Your task to perform on an android device: Do I have any events this weekend? Image 0: 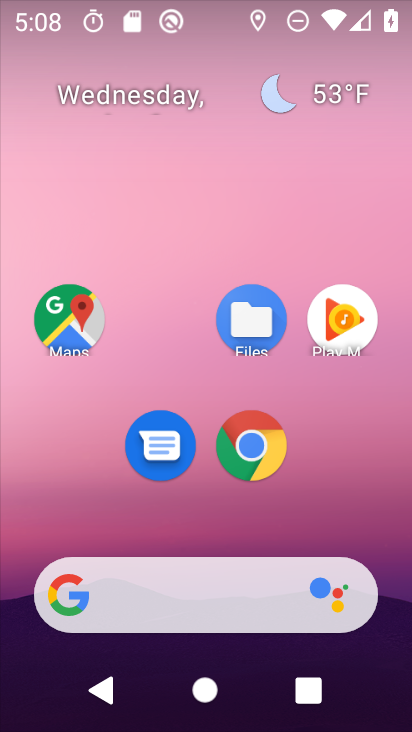
Step 0: drag from (327, 503) to (255, 109)
Your task to perform on an android device: Do I have any events this weekend? Image 1: 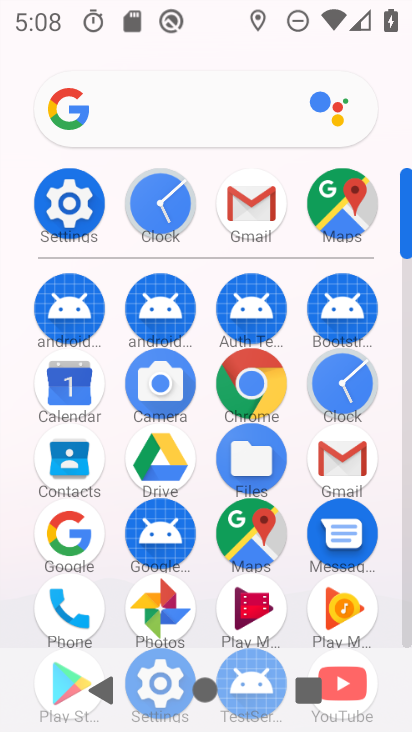
Step 1: click (83, 403)
Your task to perform on an android device: Do I have any events this weekend? Image 2: 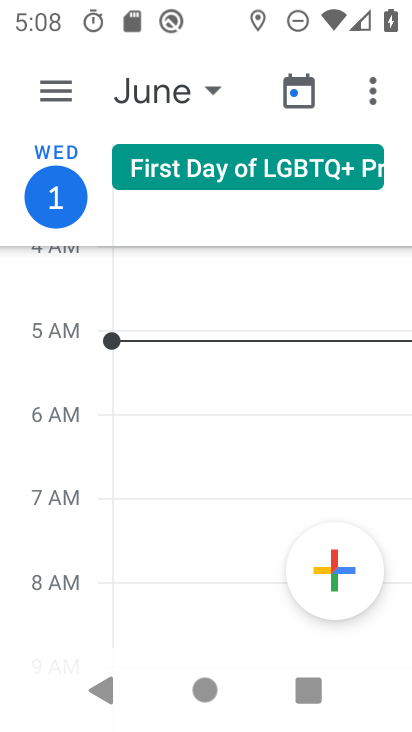
Step 2: click (53, 93)
Your task to perform on an android device: Do I have any events this weekend? Image 3: 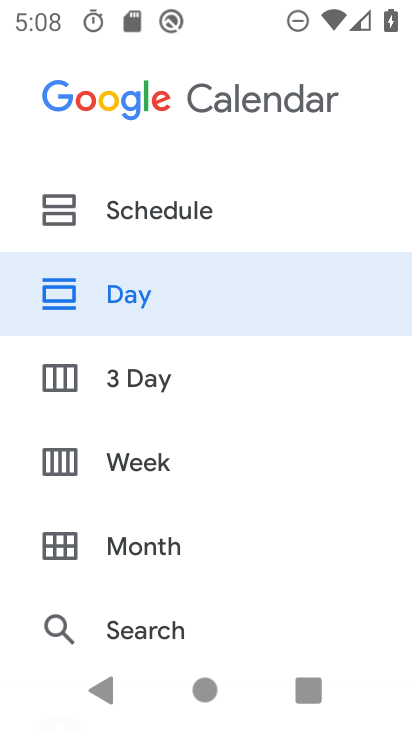
Step 3: click (108, 457)
Your task to perform on an android device: Do I have any events this weekend? Image 4: 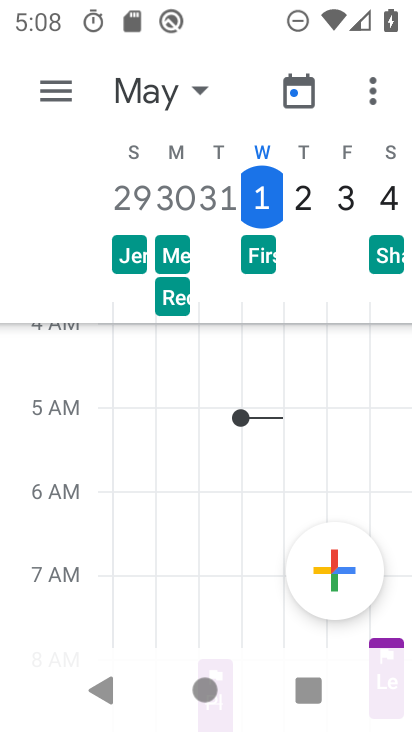
Step 4: click (47, 96)
Your task to perform on an android device: Do I have any events this weekend? Image 5: 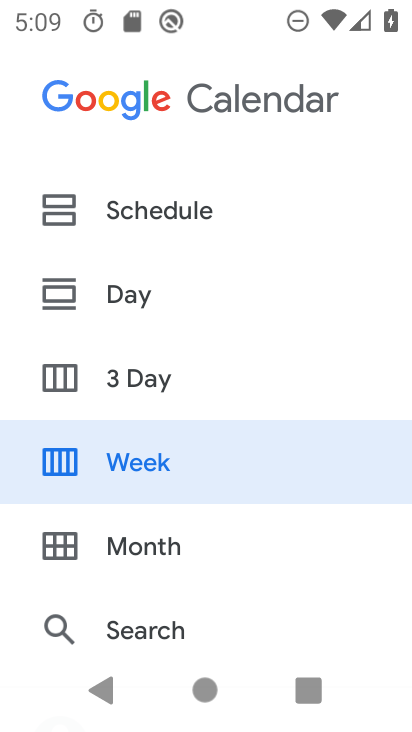
Step 5: click (124, 442)
Your task to perform on an android device: Do I have any events this weekend? Image 6: 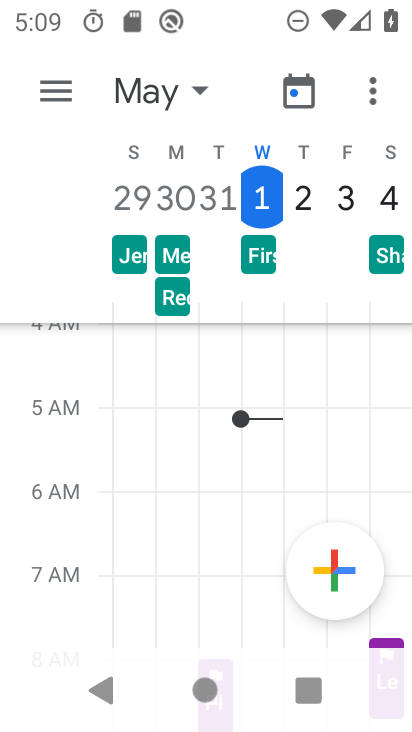
Step 6: task complete